Your task to perform on an android device: toggle airplane mode Image 0: 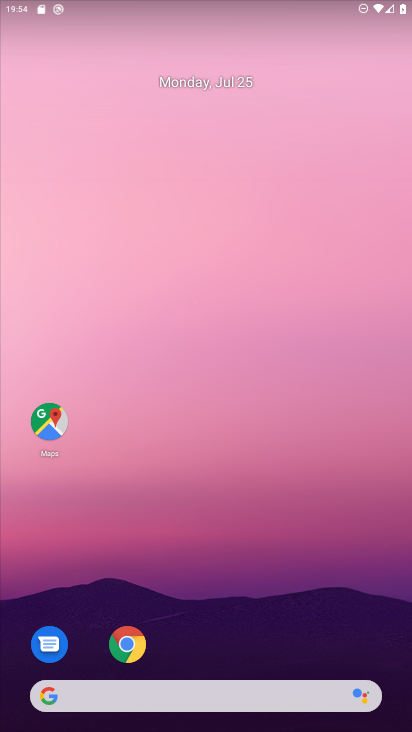
Step 0: press home button
Your task to perform on an android device: toggle airplane mode Image 1: 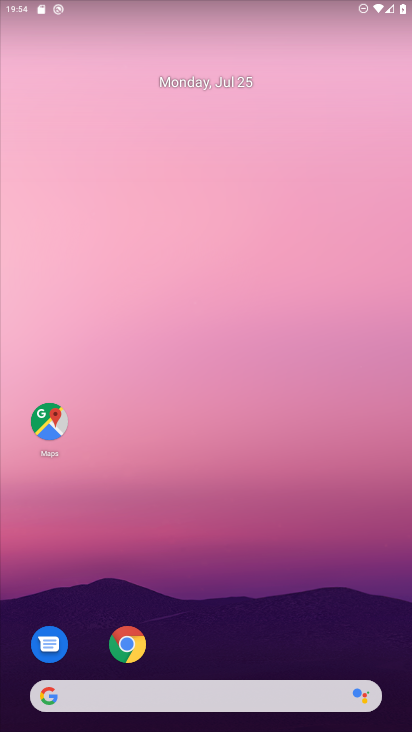
Step 1: drag from (205, 9) to (217, 499)
Your task to perform on an android device: toggle airplane mode Image 2: 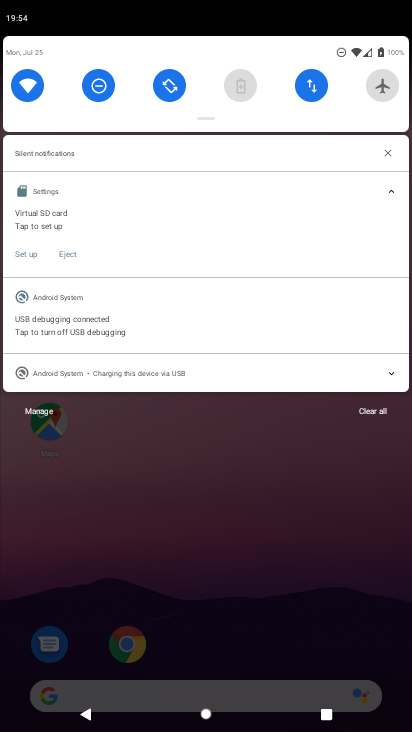
Step 2: click (385, 83)
Your task to perform on an android device: toggle airplane mode Image 3: 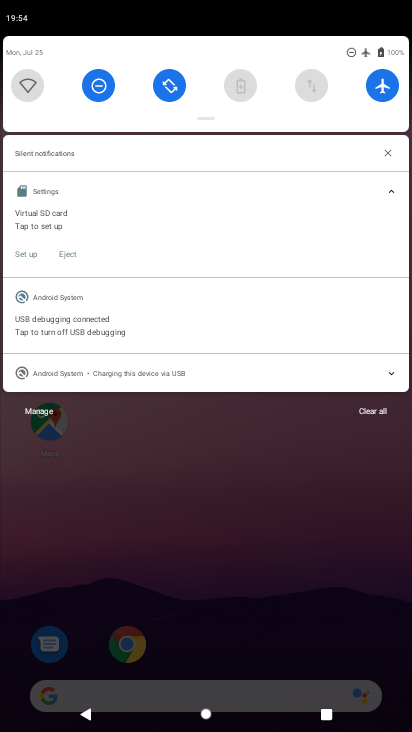
Step 3: task complete